Your task to perform on an android device: Go to wifi settings Image 0: 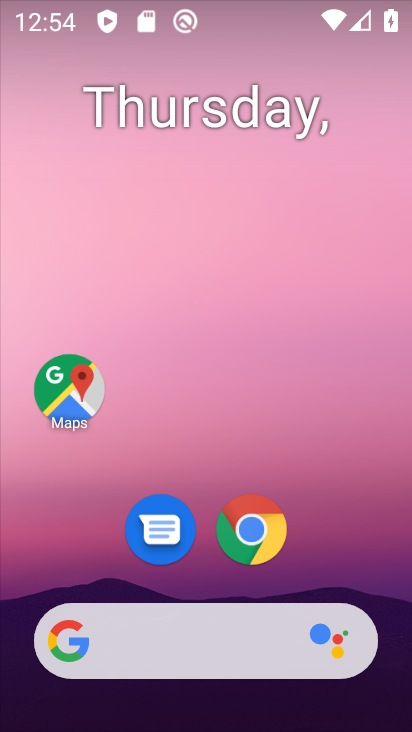
Step 0: press home button
Your task to perform on an android device: Go to wifi settings Image 1: 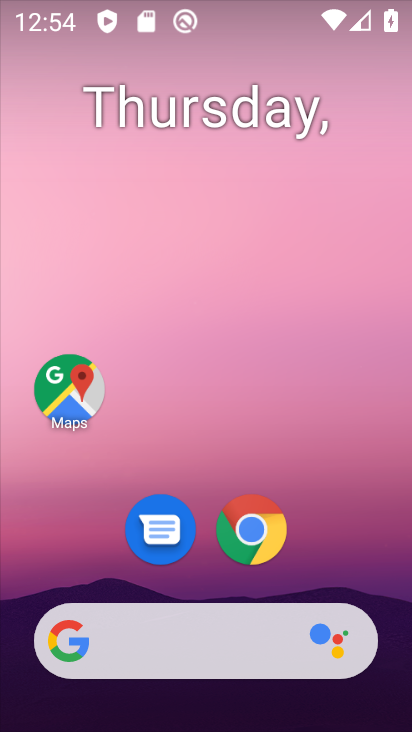
Step 1: drag from (378, 539) to (341, 125)
Your task to perform on an android device: Go to wifi settings Image 2: 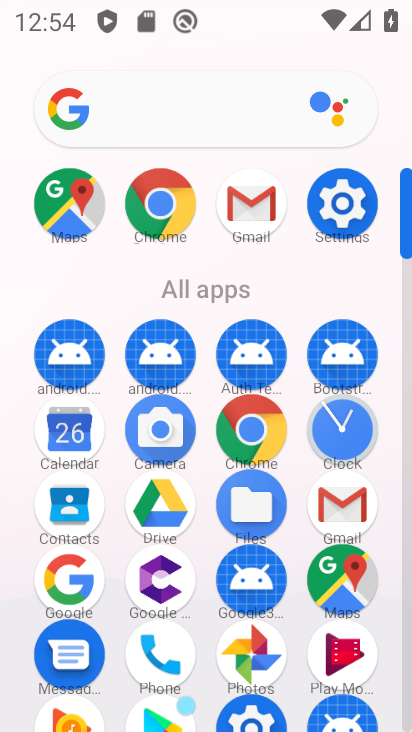
Step 2: click (334, 215)
Your task to perform on an android device: Go to wifi settings Image 3: 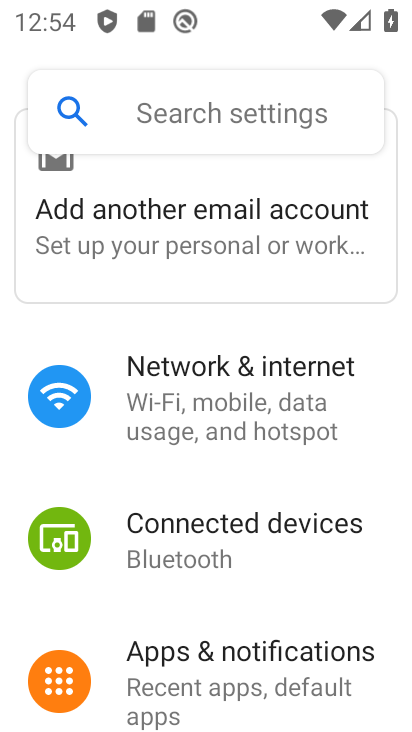
Step 3: click (288, 346)
Your task to perform on an android device: Go to wifi settings Image 4: 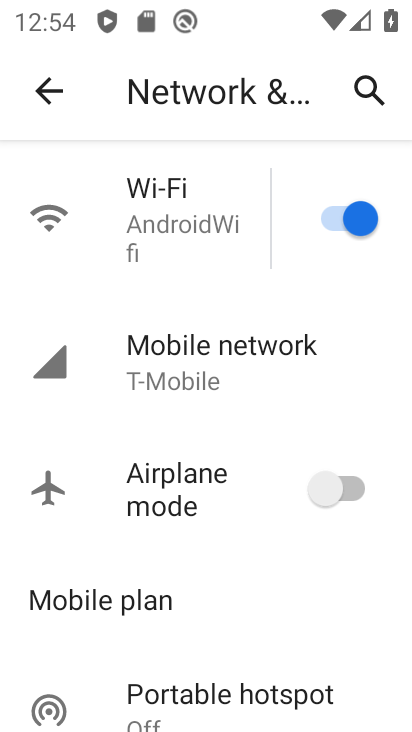
Step 4: click (226, 237)
Your task to perform on an android device: Go to wifi settings Image 5: 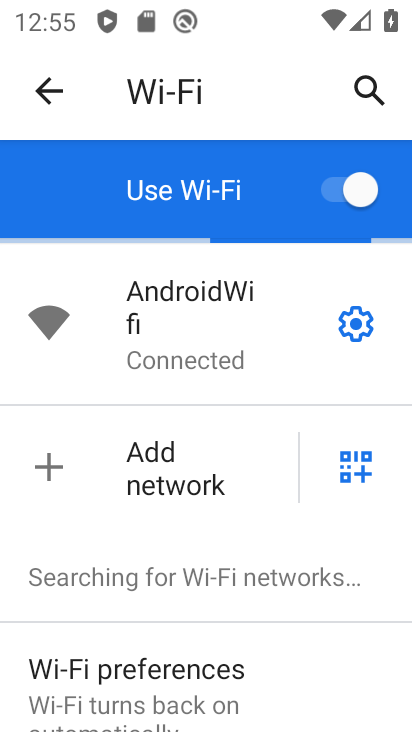
Step 5: click (324, 319)
Your task to perform on an android device: Go to wifi settings Image 6: 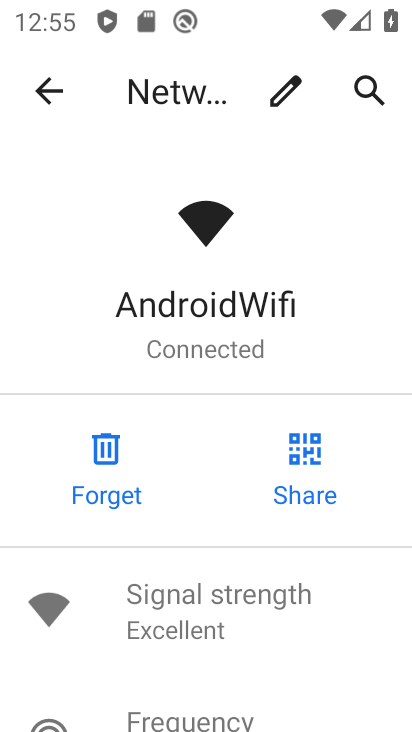
Step 6: task complete